Your task to perform on an android device: turn off airplane mode Image 0: 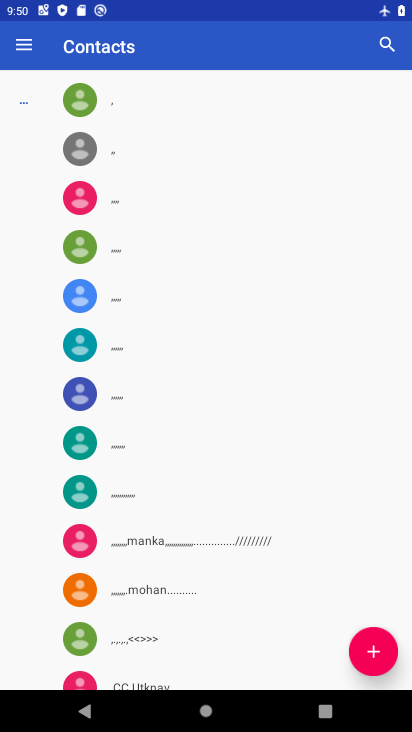
Step 0: press home button
Your task to perform on an android device: turn off airplane mode Image 1: 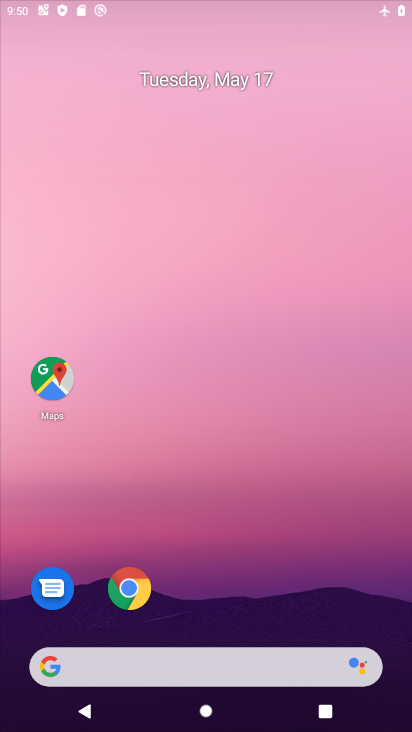
Step 1: drag from (209, 651) to (178, 5)
Your task to perform on an android device: turn off airplane mode Image 2: 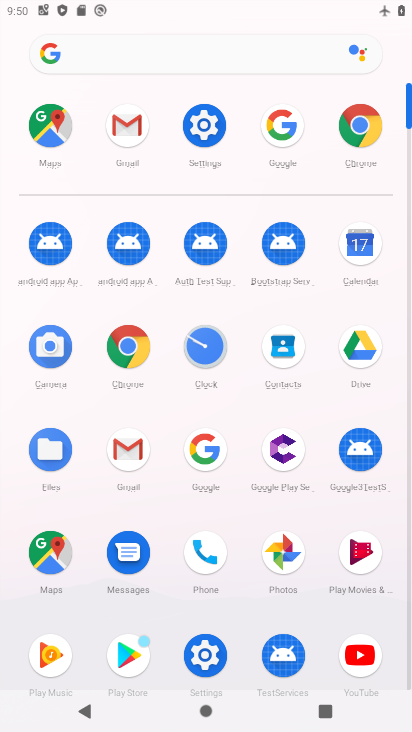
Step 2: click (207, 139)
Your task to perform on an android device: turn off airplane mode Image 3: 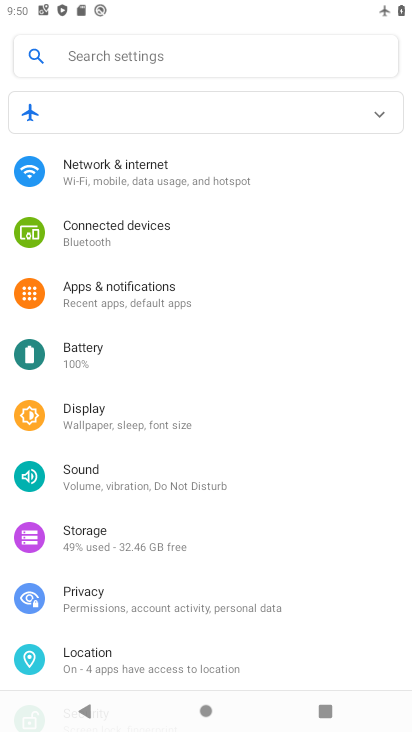
Step 3: click (160, 193)
Your task to perform on an android device: turn off airplane mode Image 4: 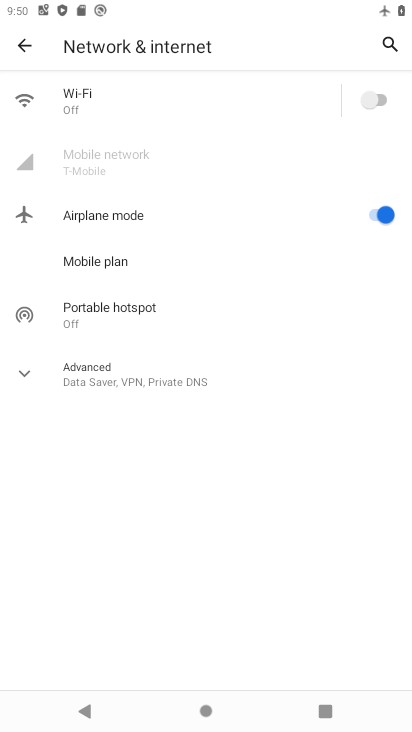
Step 4: click (372, 215)
Your task to perform on an android device: turn off airplane mode Image 5: 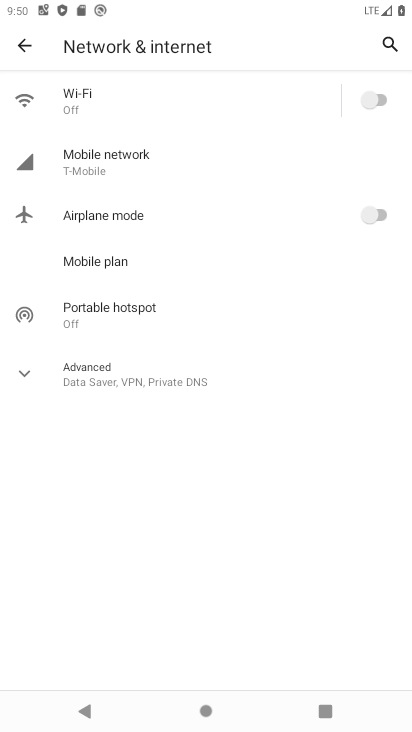
Step 5: task complete